Your task to perform on an android device: choose inbox layout in the gmail app Image 0: 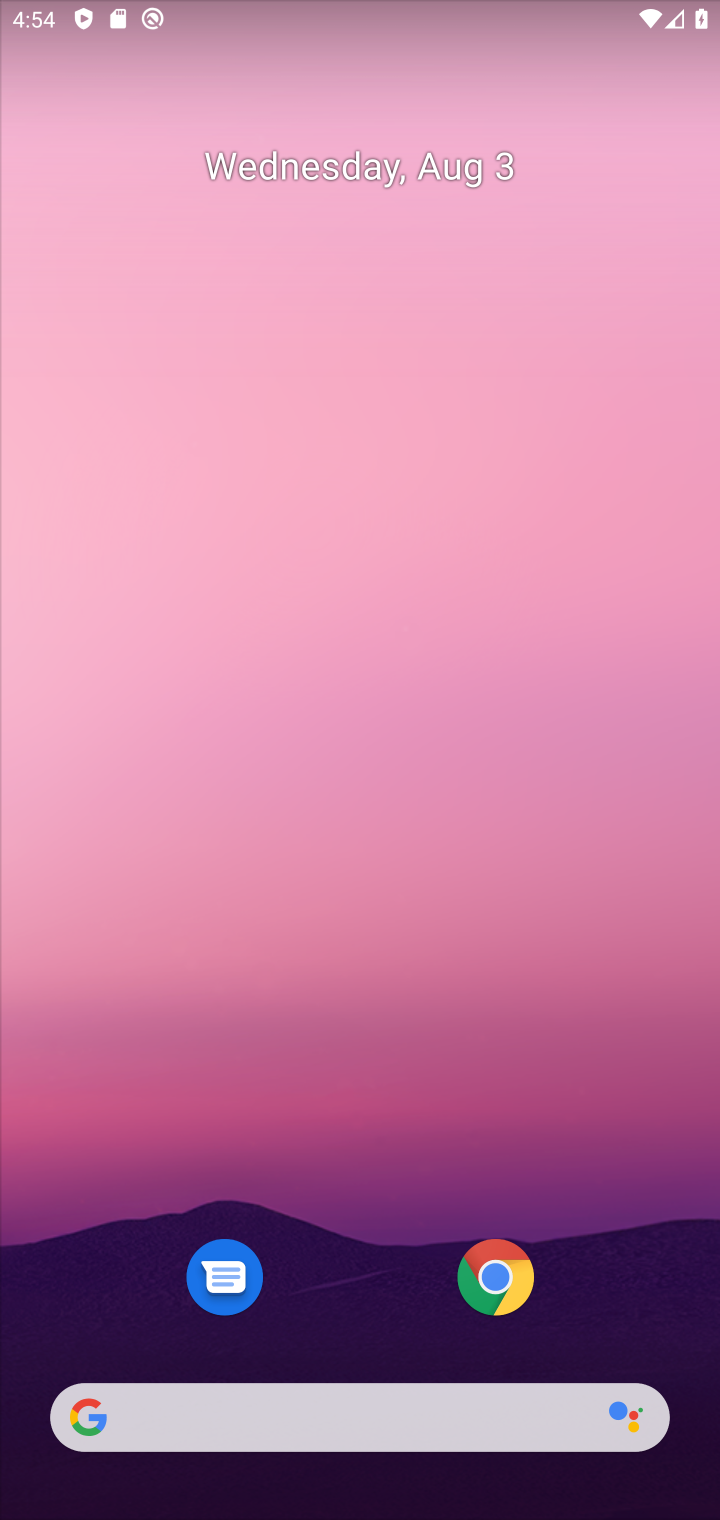
Step 0: drag from (390, 981) to (540, 47)
Your task to perform on an android device: choose inbox layout in the gmail app Image 1: 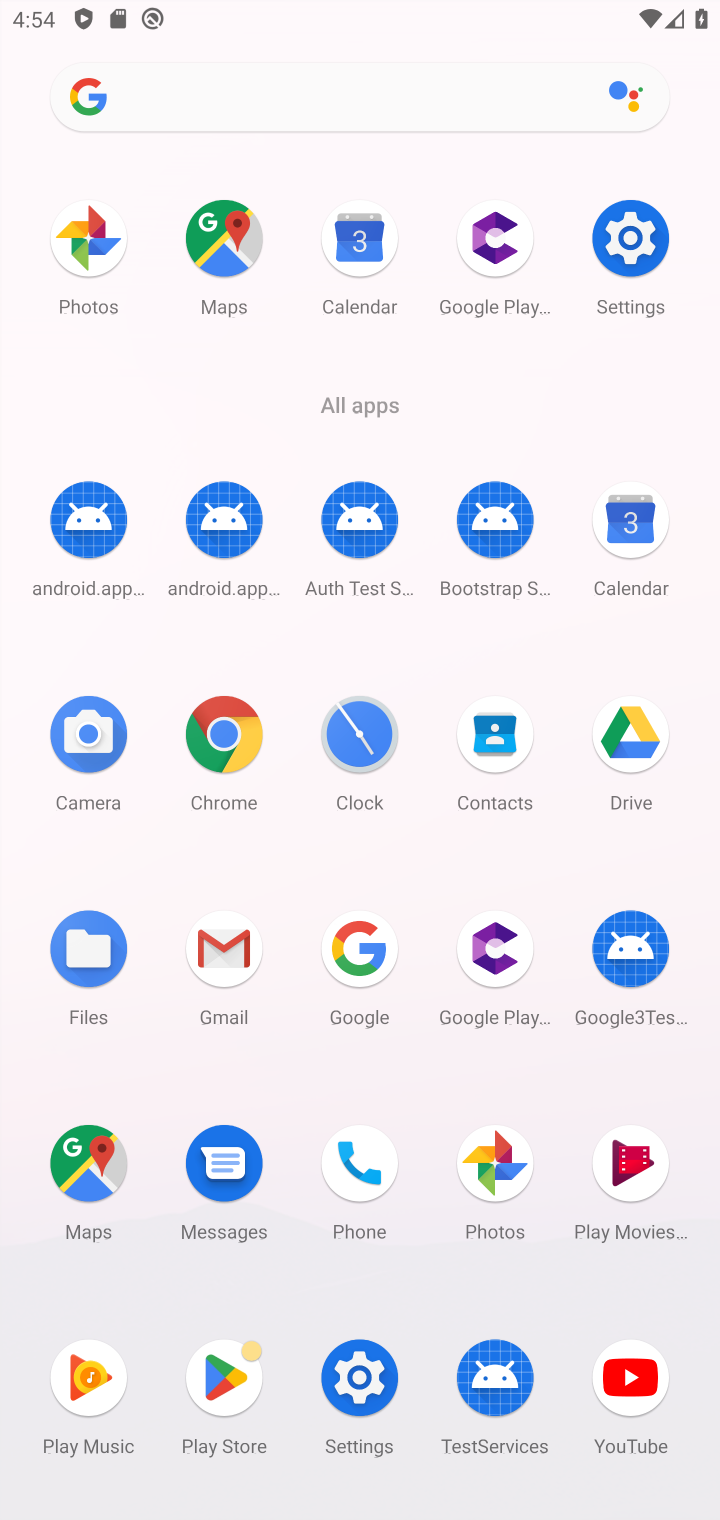
Step 1: click (211, 967)
Your task to perform on an android device: choose inbox layout in the gmail app Image 2: 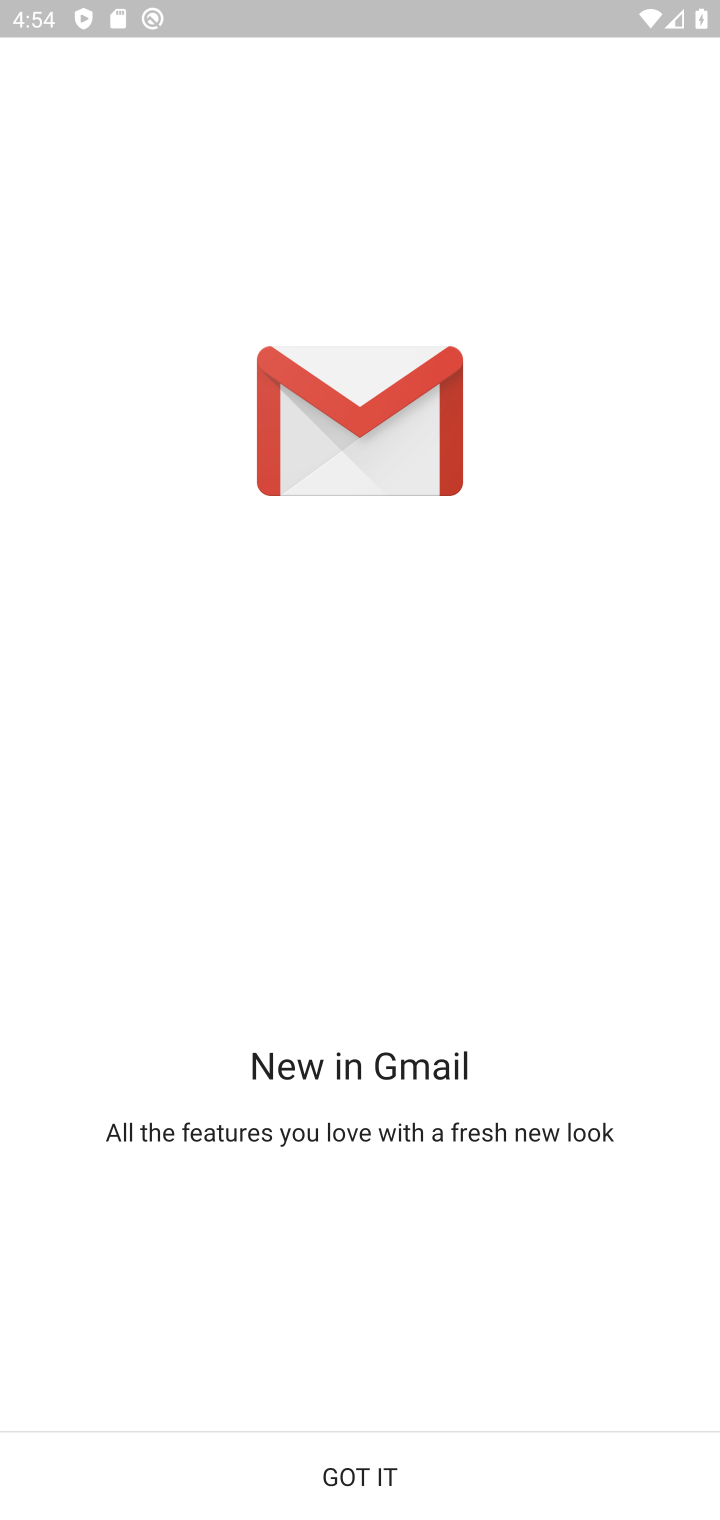
Step 2: click (329, 1475)
Your task to perform on an android device: choose inbox layout in the gmail app Image 3: 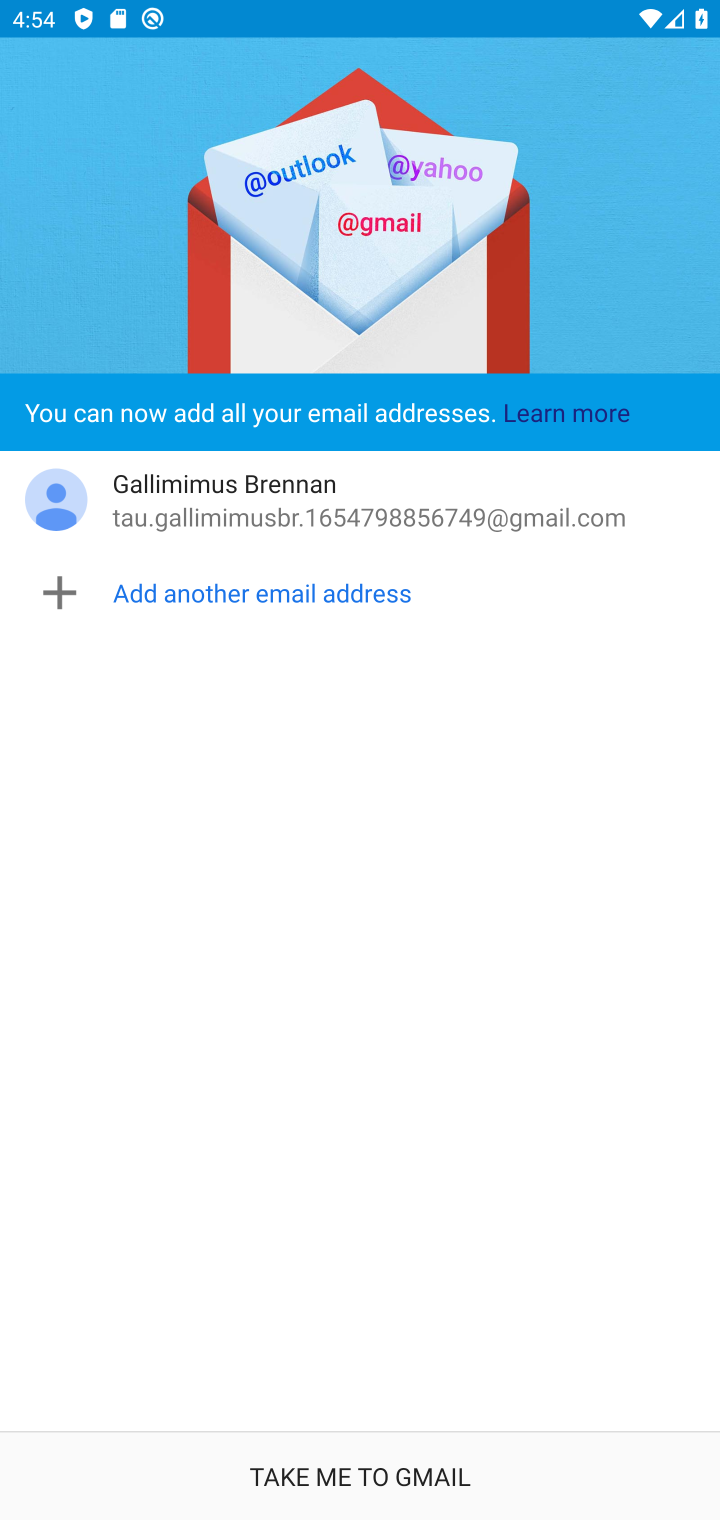
Step 3: click (417, 1461)
Your task to perform on an android device: choose inbox layout in the gmail app Image 4: 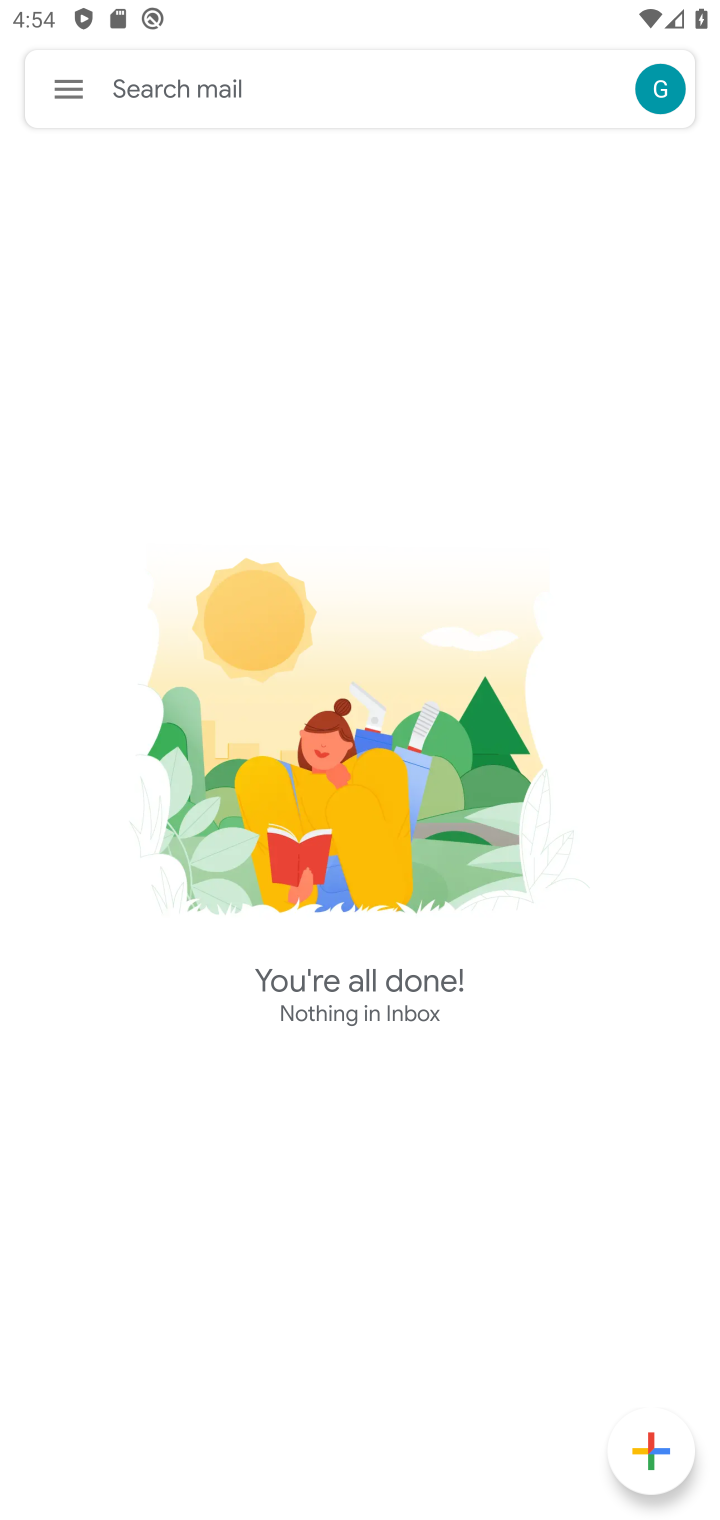
Step 4: click (58, 94)
Your task to perform on an android device: choose inbox layout in the gmail app Image 5: 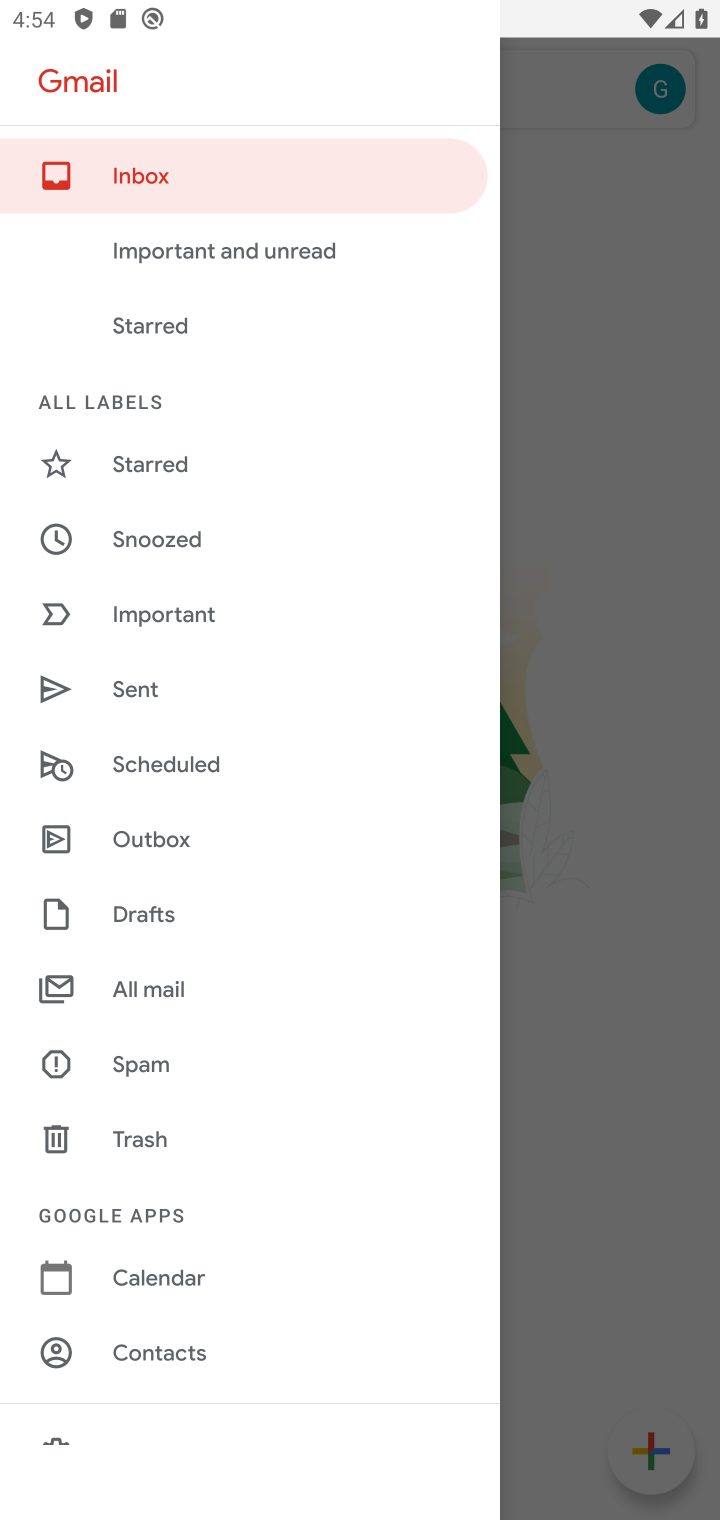
Step 5: drag from (164, 1188) to (360, 155)
Your task to perform on an android device: choose inbox layout in the gmail app Image 6: 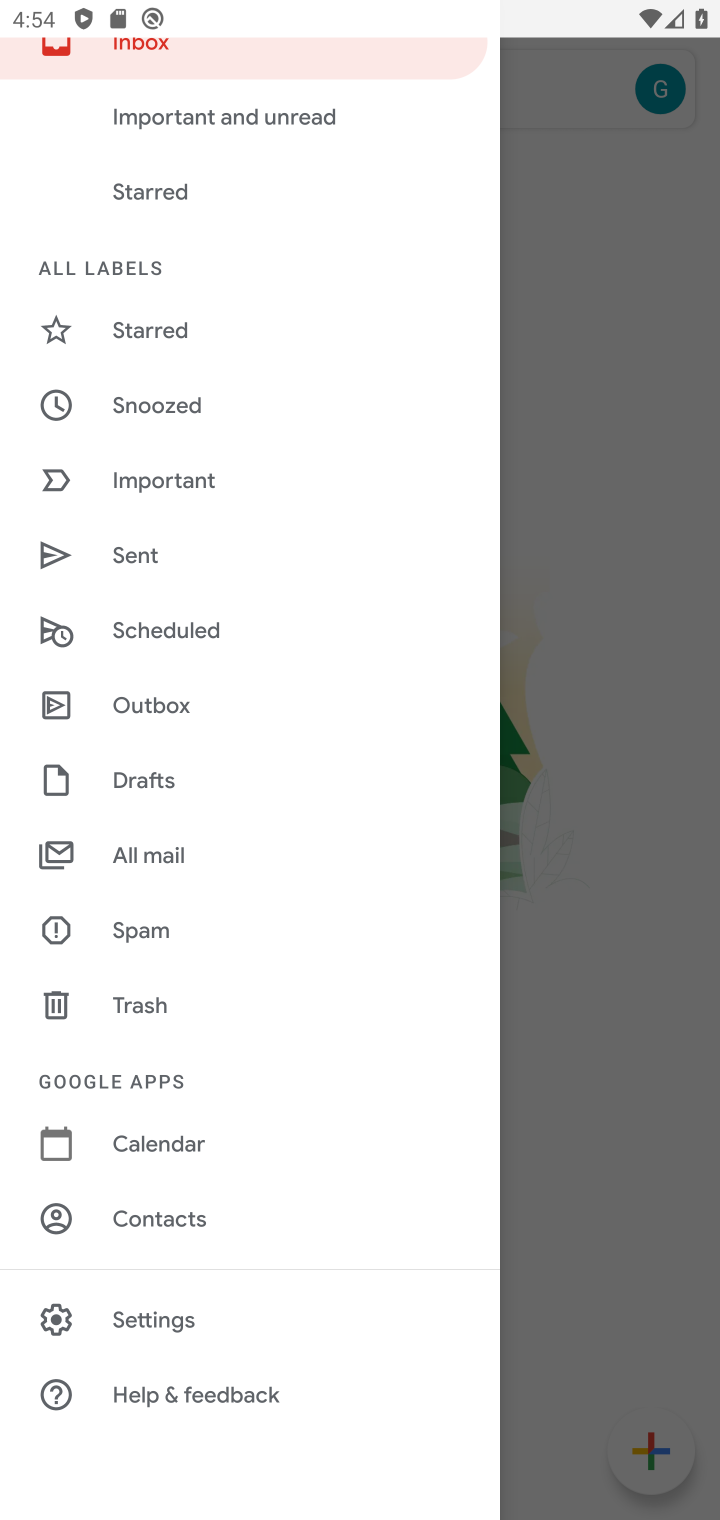
Step 6: click (157, 1306)
Your task to perform on an android device: choose inbox layout in the gmail app Image 7: 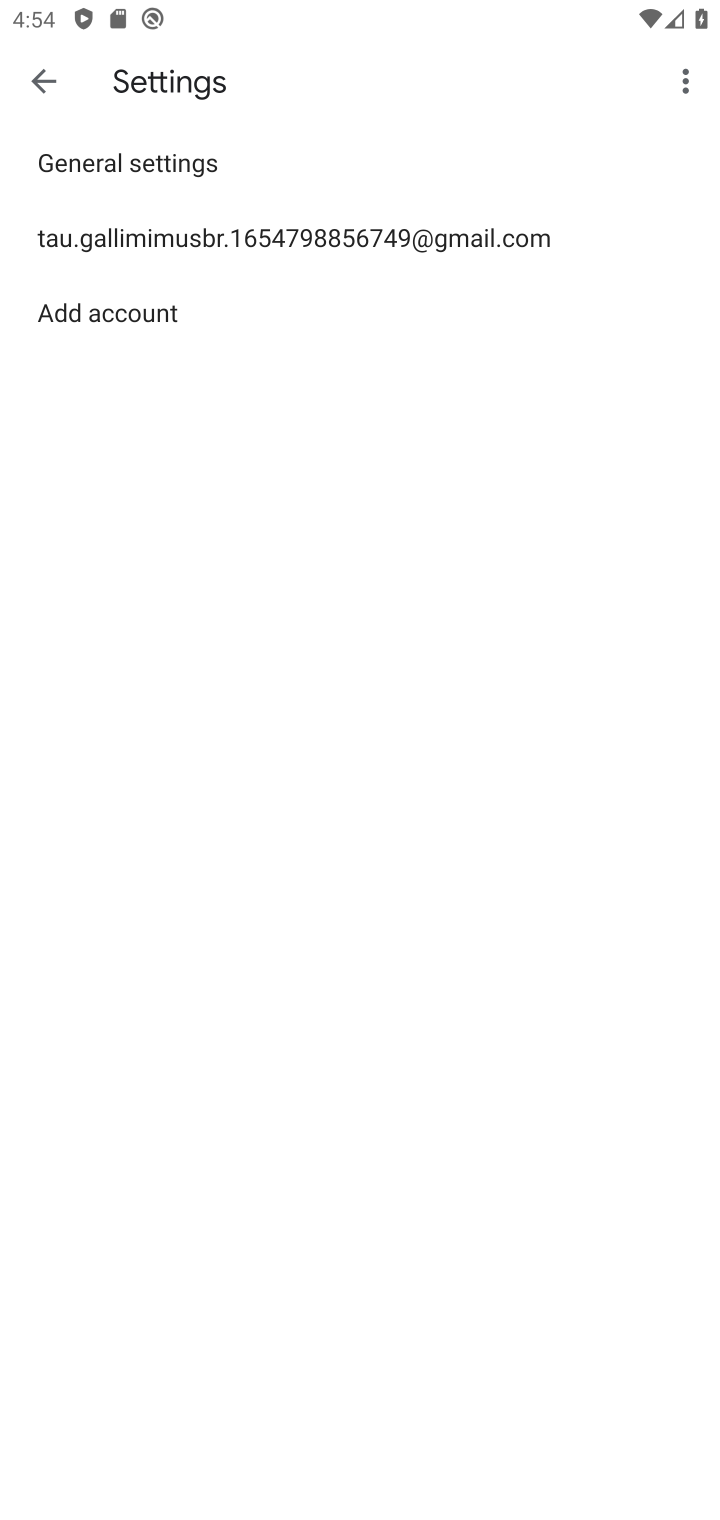
Step 7: click (204, 240)
Your task to perform on an android device: choose inbox layout in the gmail app Image 8: 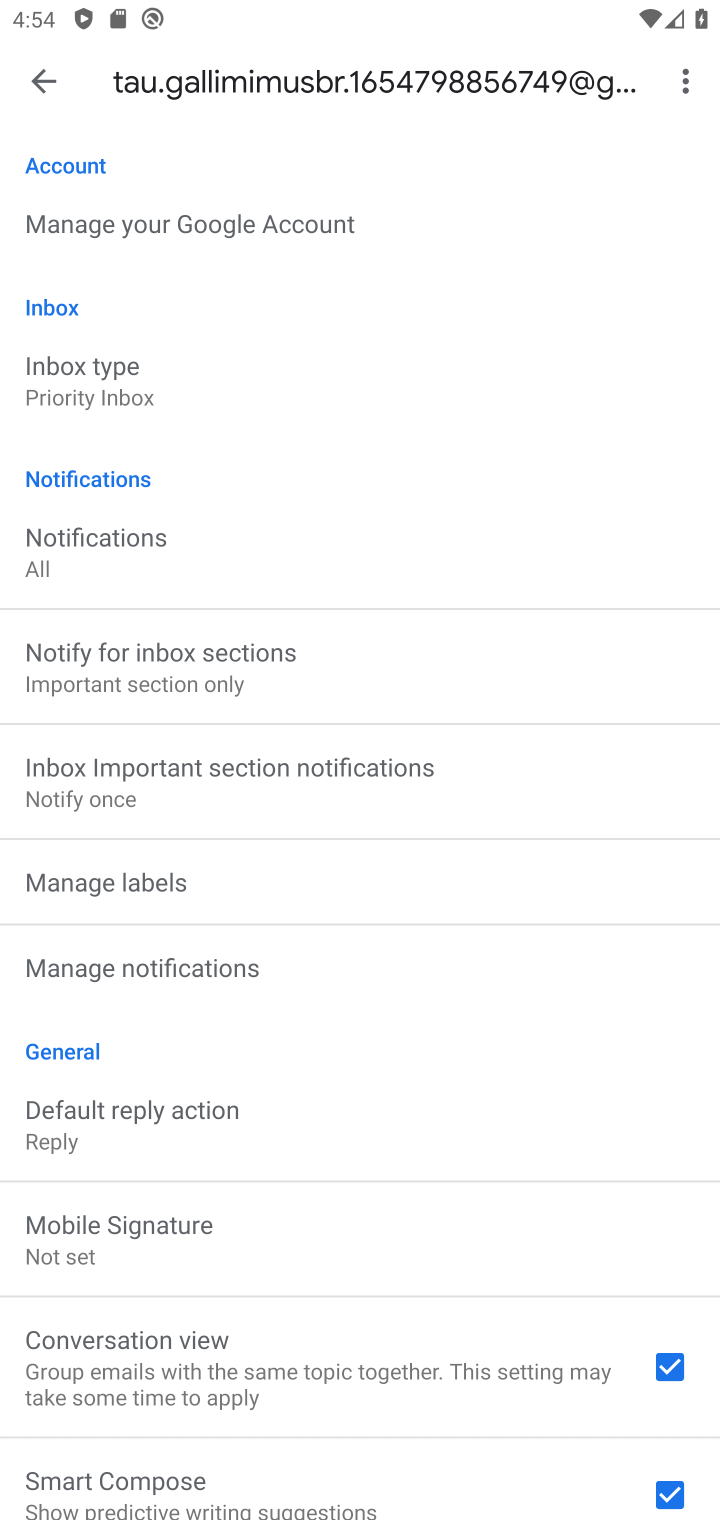
Step 8: click (210, 360)
Your task to perform on an android device: choose inbox layout in the gmail app Image 9: 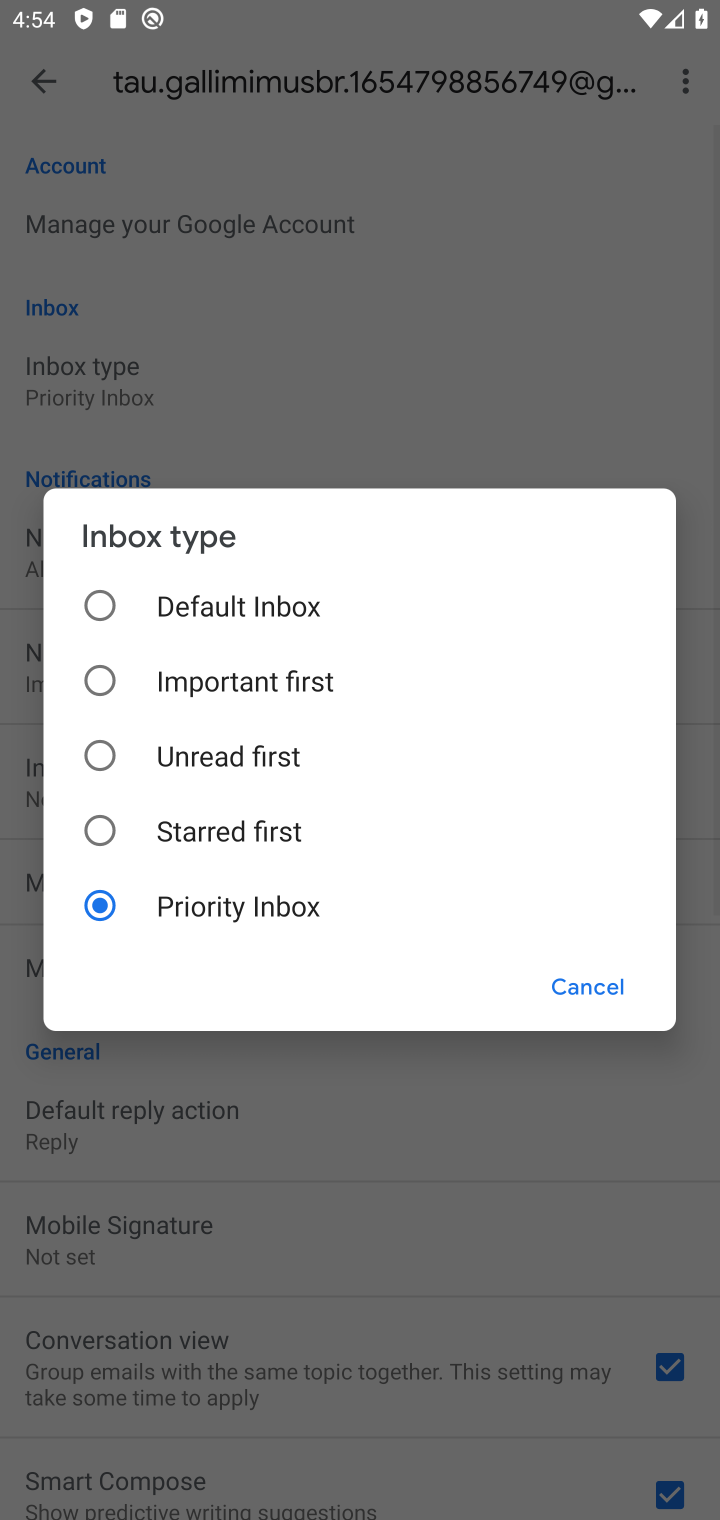
Step 9: click (211, 609)
Your task to perform on an android device: choose inbox layout in the gmail app Image 10: 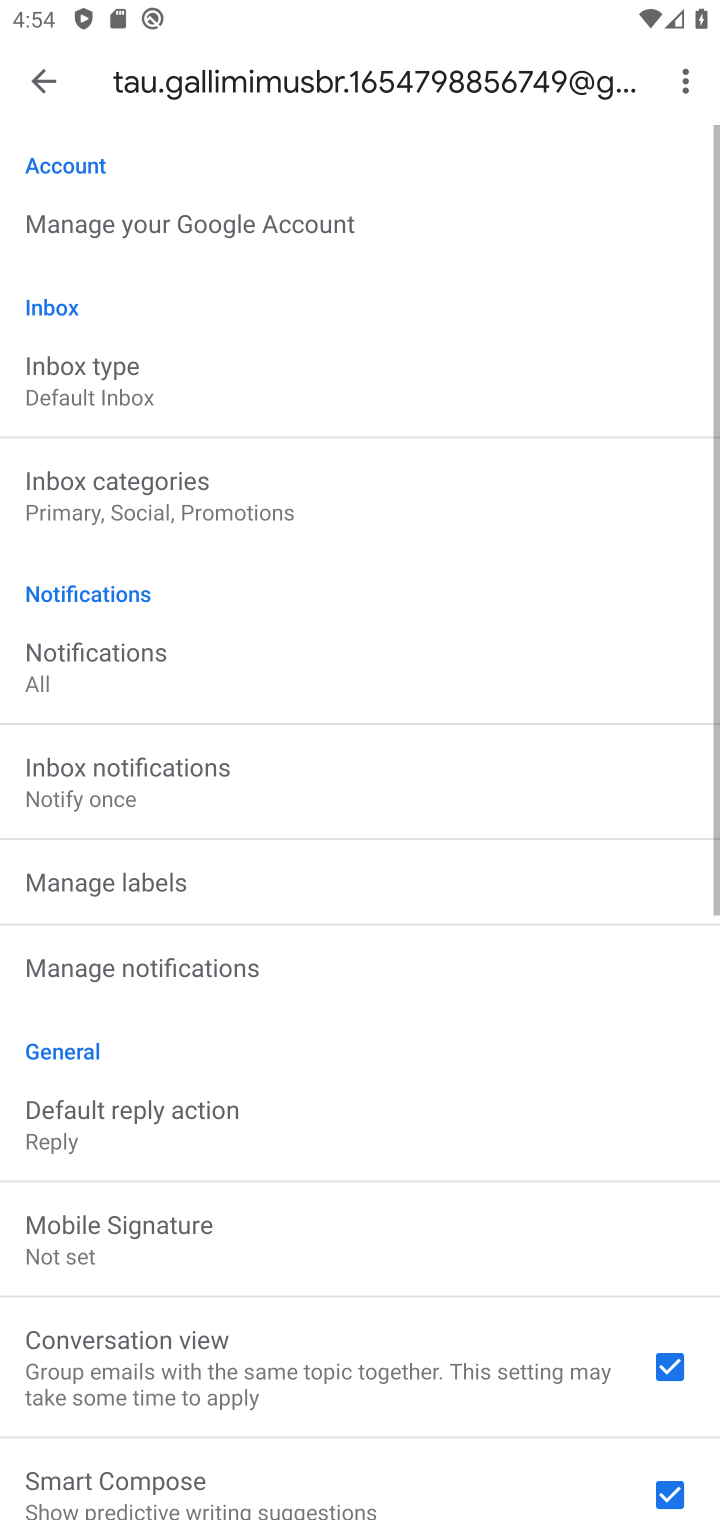
Step 10: task complete